Your task to perform on an android device: Open Google Chrome and open the bookmarks view Image 0: 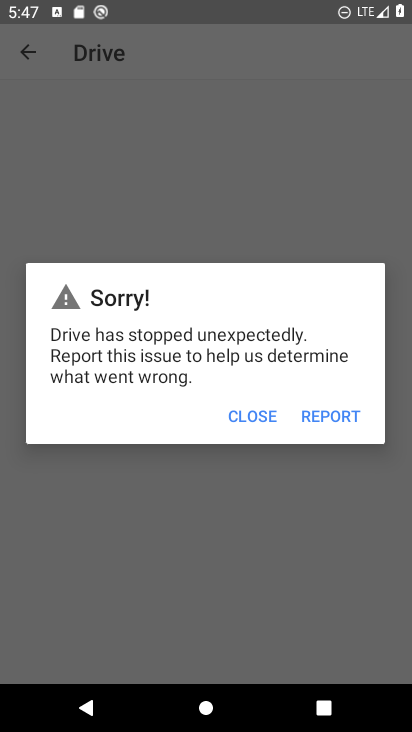
Step 0: press home button
Your task to perform on an android device: Open Google Chrome and open the bookmarks view Image 1: 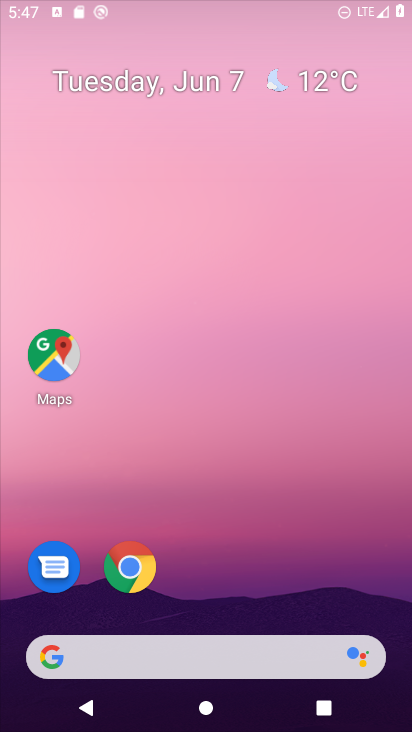
Step 1: drag from (248, 688) to (246, 4)
Your task to perform on an android device: Open Google Chrome and open the bookmarks view Image 2: 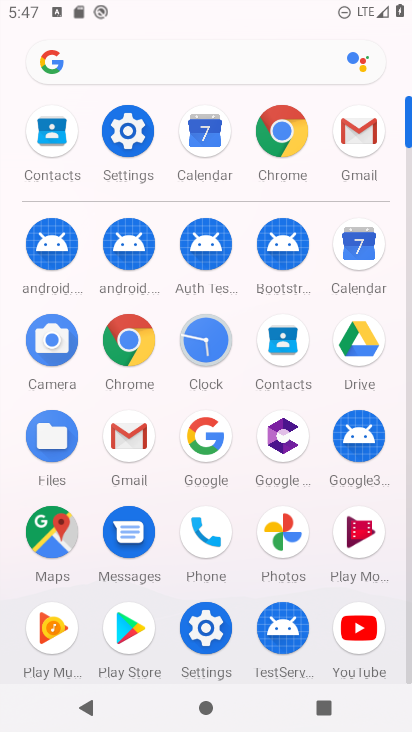
Step 2: click (123, 345)
Your task to perform on an android device: Open Google Chrome and open the bookmarks view Image 3: 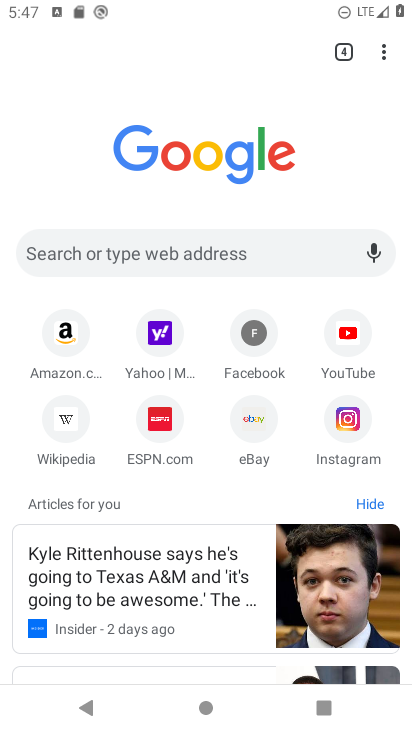
Step 3: click (376, 54)
Your task to perform on an android device: Open Google Chrome and open the bookmarks view Image 4: 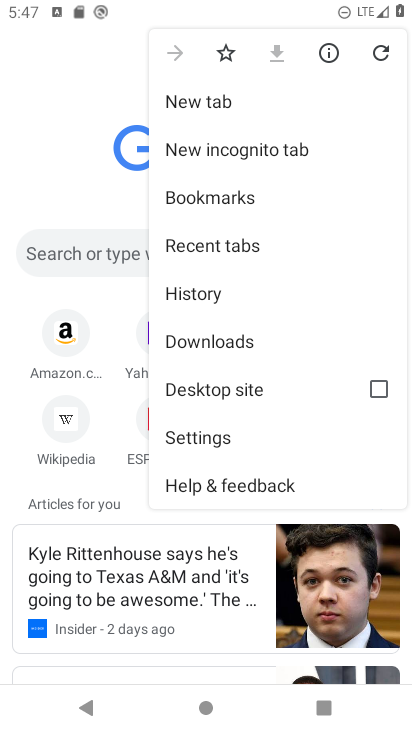
Step 4: click (282, 210)
Your task to perform on an android device: Open Google Chrome and open the bookmarks view Image 5: 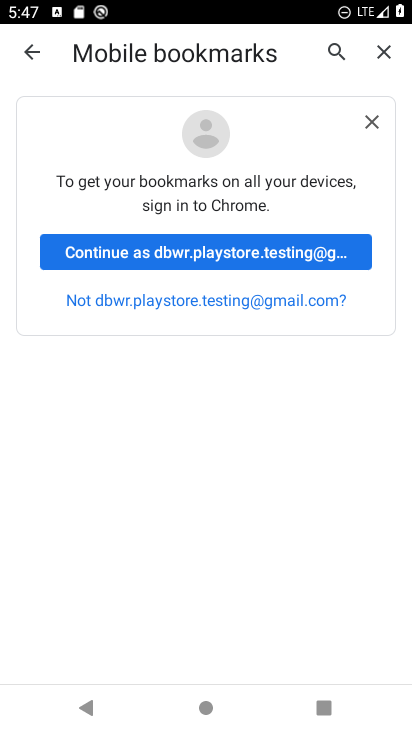
Step 5: task complete